Your task to perform on an android device: check out phone information Image 0: 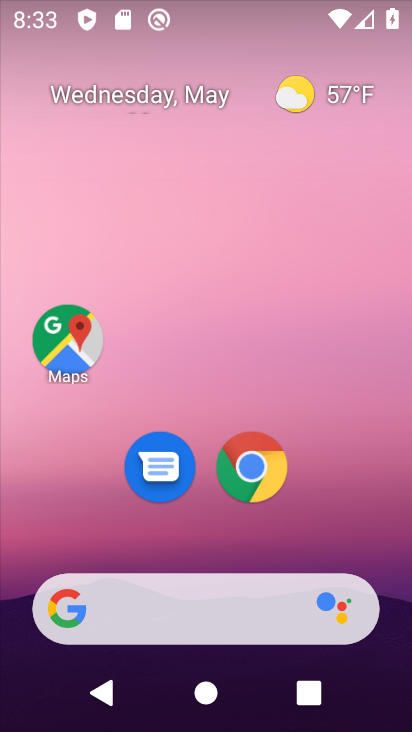
Step 0: click (393, 602)
Your task to perform on an android device: check out phone information Image 1: 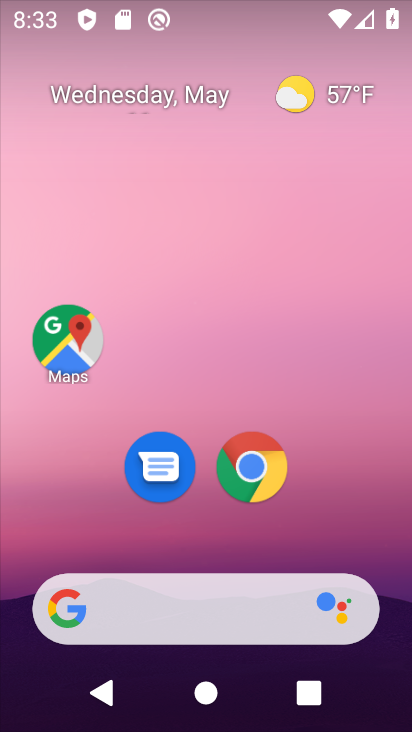
Step 1: click (79, 31)
Your task to perform on an android device: check out phone information Image 2: 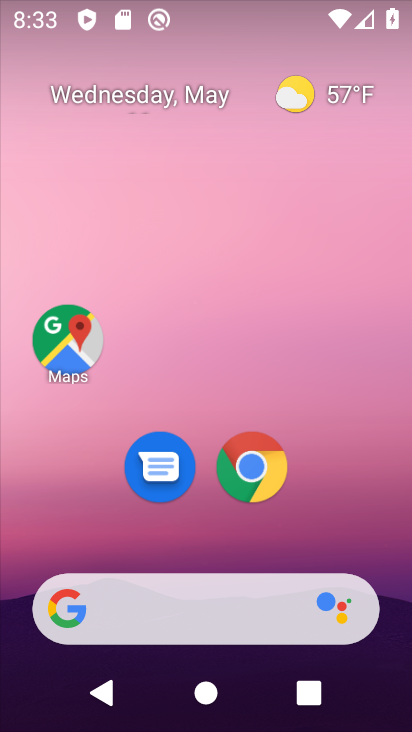
Step 2: drag from (293, 451) to (114, 20)
Your task to perform on an android device: check out phone information Image 3: 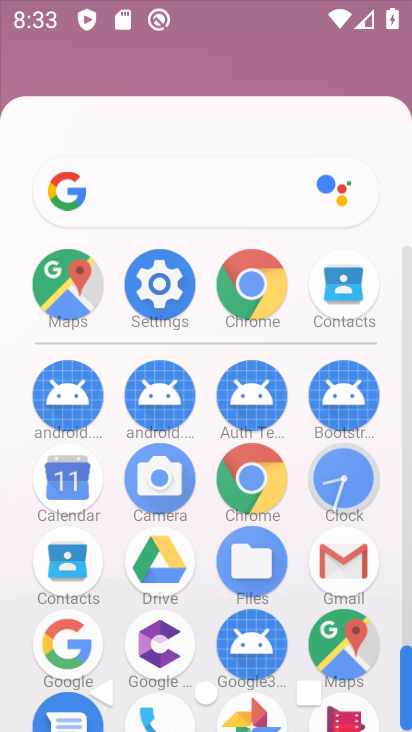
Step 3: drag from (294, 418) to (179, 38)
Your task to perform on an android device: check out phone information Image 4: 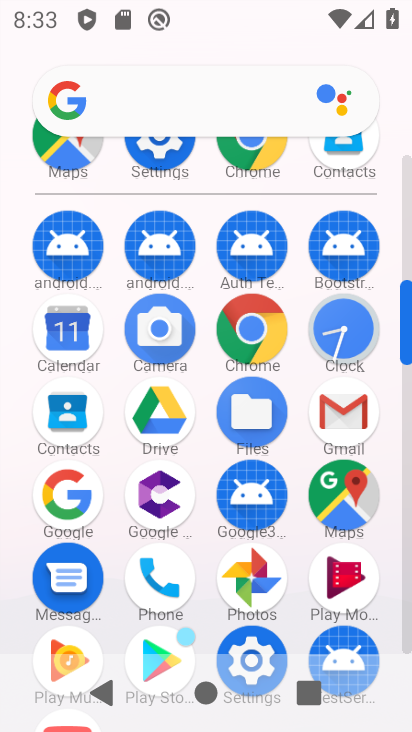
Step 4: drag from (285, 427) to (182, 94)
Your task to perform on an android device: check out phone information Image 5: 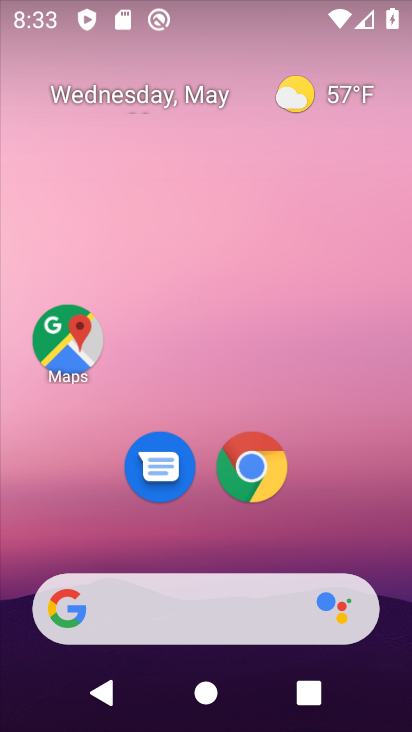
Step 5: press home button
Your task to perform on an android device: check out phone information Image 6: 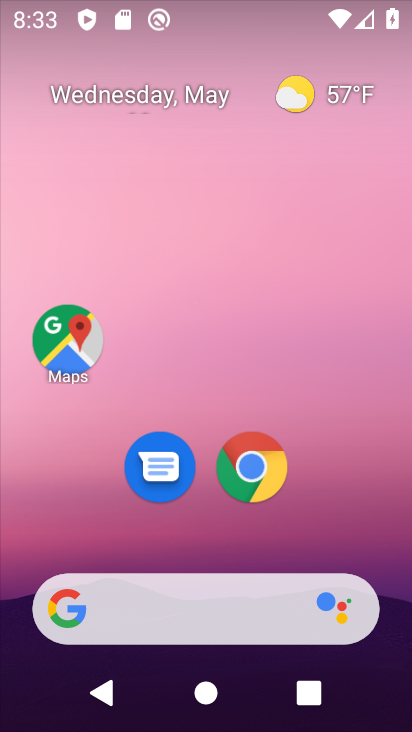
Step 6: press home button
Your task to perform on an android device: check out phone information Image 7: 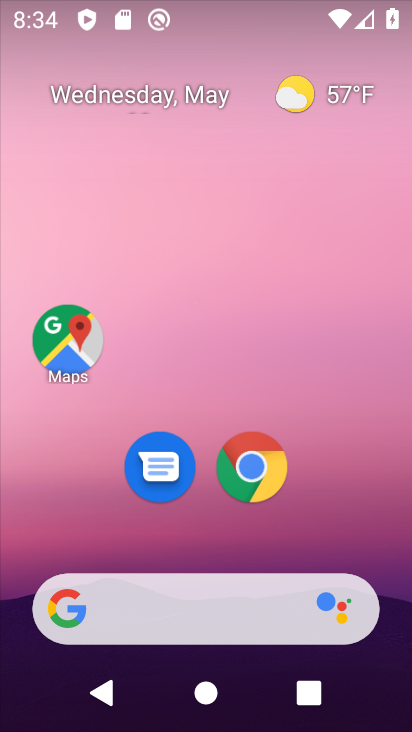
Step 7: click (51, 18)
Your task to perform on an android device: check out phone information Image 8: 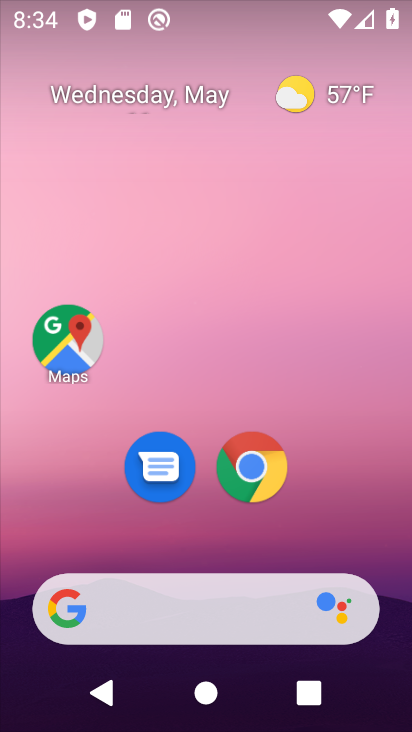
Step 8: click (92, 39)
Your task to perform on an android device: check out phone information Image 9: 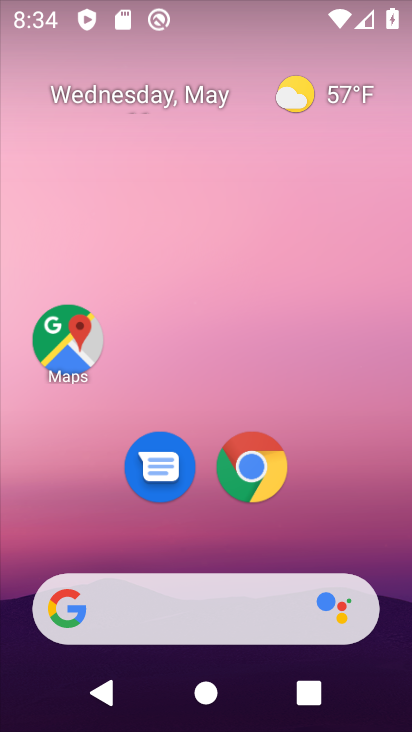
Step 9: drag from (298, 561) to (84, 88)
Your task to perform on an android device: check out phone information Image 10: 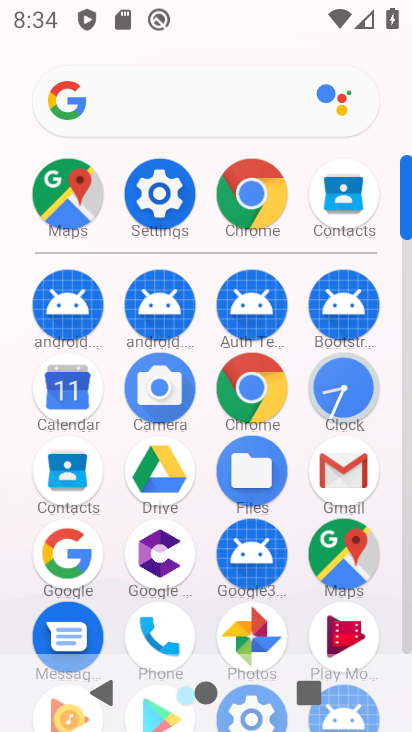
Step 10: drag from (19, 8) to (140, 101)
Your task to perform on an android device: check out phone information Image 11: 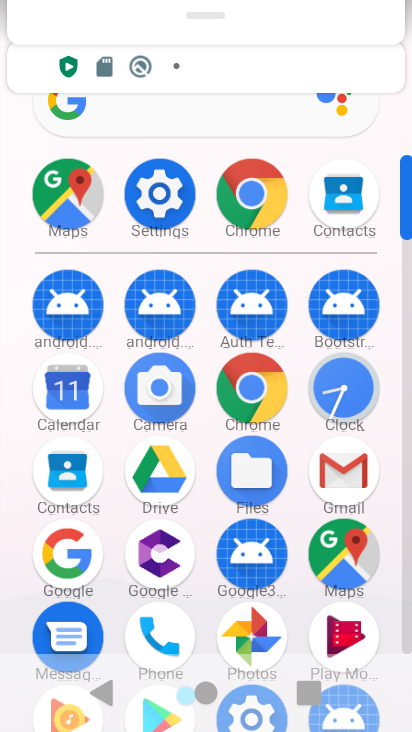
Step 11: drag from (216, 416) to (57, 63)
Your task to perform on an android device: check out phone information Image 12: 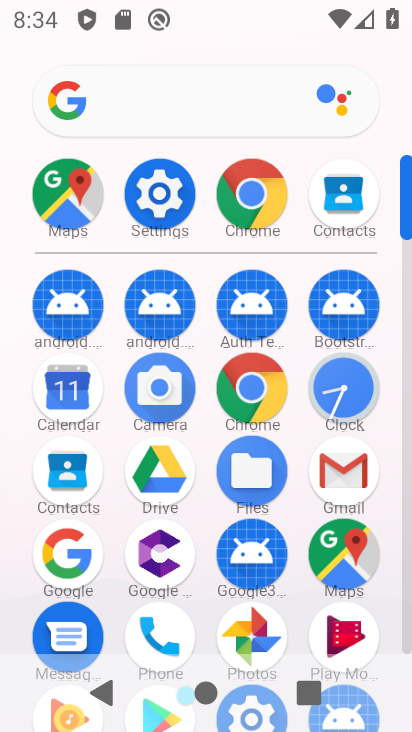
Step 12: drag from (135, 356) to (85, 213)
Your task to perform on an android device: check out phone information Image 13: 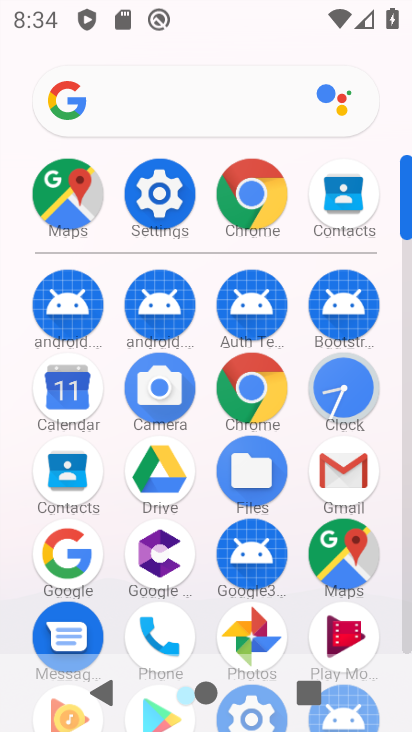
Step 13: drag from (244, 568) to (162, 238)
Your task to perform on an android device: check out phone information Image 14: 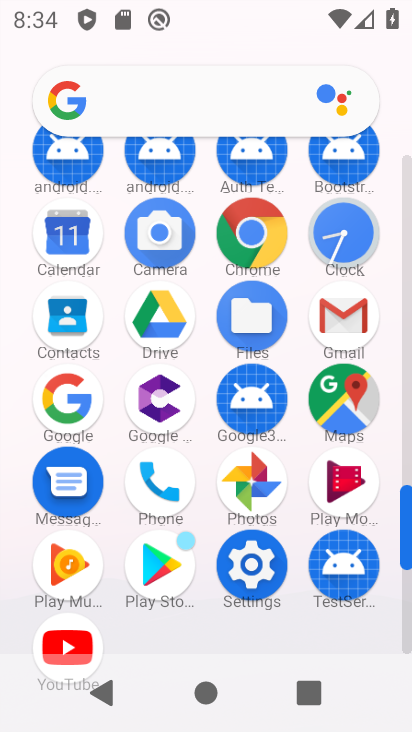
Step 14: click (150, 629)
Your task to perform on an android device: check out phone information Image 15: 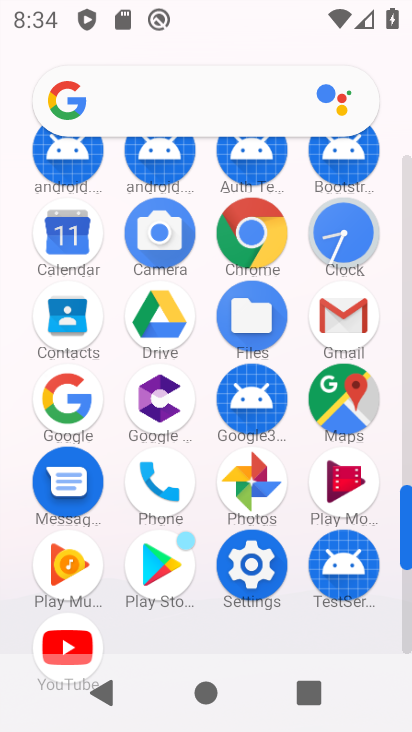
Step 15: click (148, 468)
Your task to perform on an android device: check out phone information Image 16: 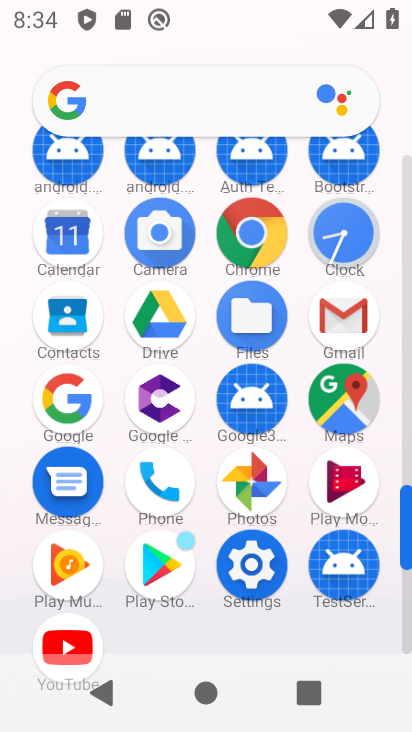
Step 16: click (148, 467)
Your task to perform on an android device: check out phone information Image 17: 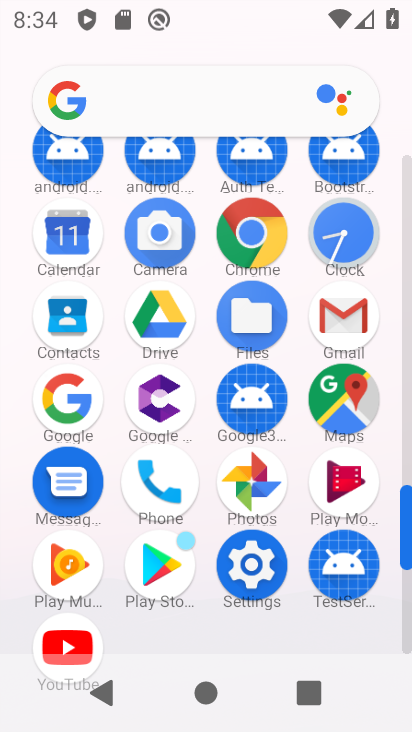
Step 17: drag from (150, 493) to (146, 459)
Your task to perform on an android device: check out phone information Image 18: 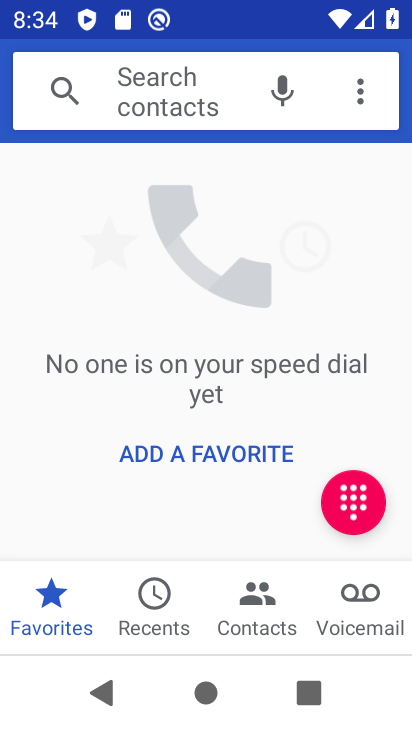
Step 18: press back button
Your task to perform on an android device: check out phone information Image 19: 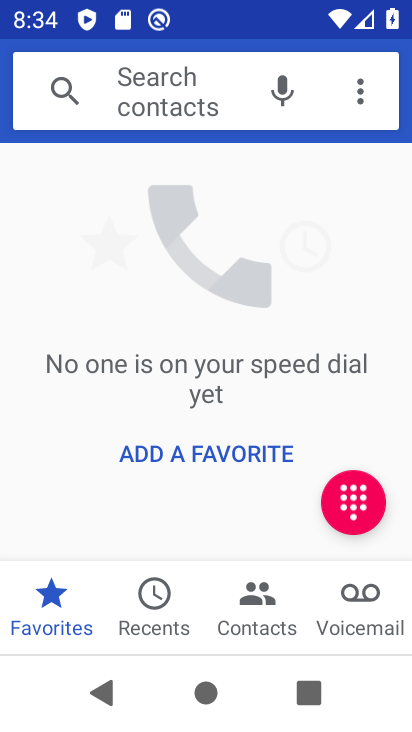
Step 19: press back button
Your task to perform on an android device: check out phone information Image 20: 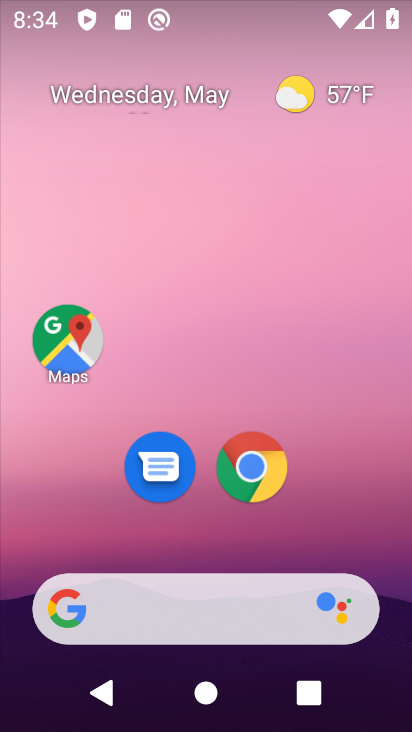
Step 20: drag from (187, 358) to (115, 217)
Your task to perform on an android device: check out phone information Image 21: 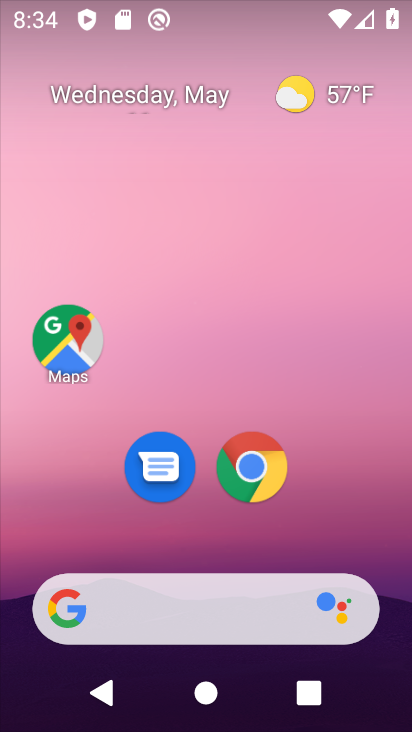
Step 21: drag from (243, 489) to (0, 13)
Your task to perform on an android device: check out phone information Image 22: 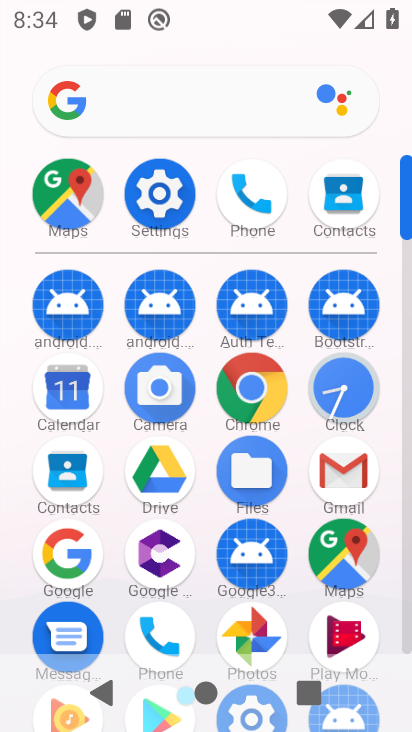
Step 22: click (160, 194)
Your task to perform on an android device: check out phone information Image 23: 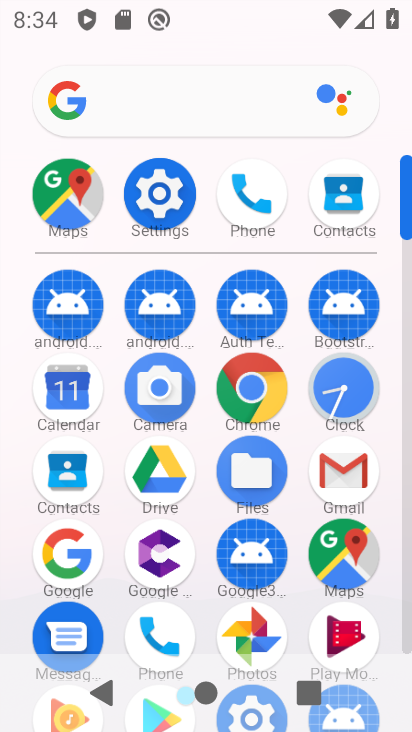
Step 23: click (160, 194)
Your task to perform on an android device: check out phone information Image 24: 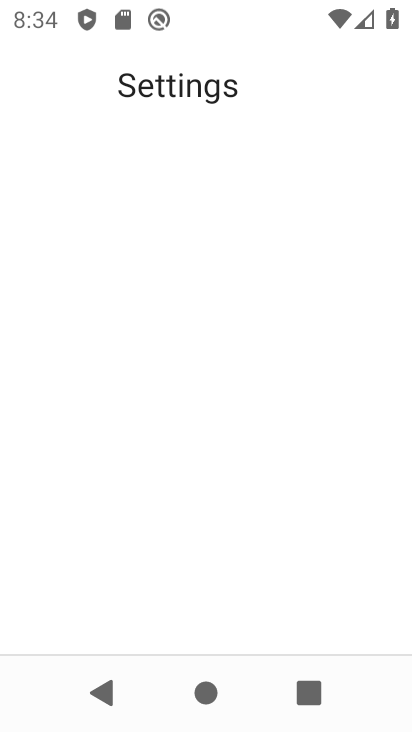
Step 24: click (156, 191)
Your task to perform on an android device: check out phone information Image 25: 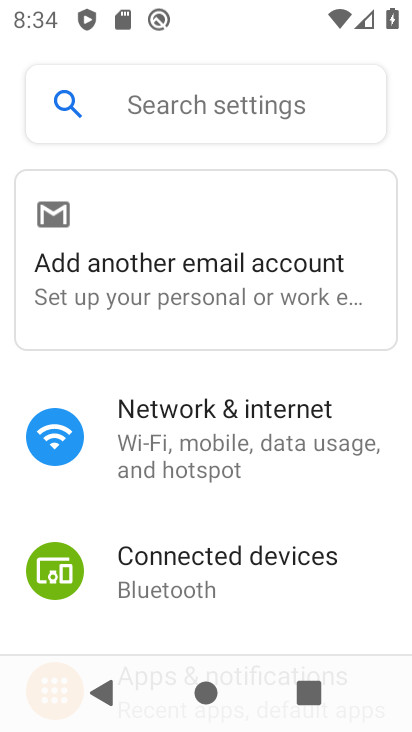
Step 25: drag from (206, 524) to (104, 127)
Your task to perform on an android device: check out phone information Image 26: 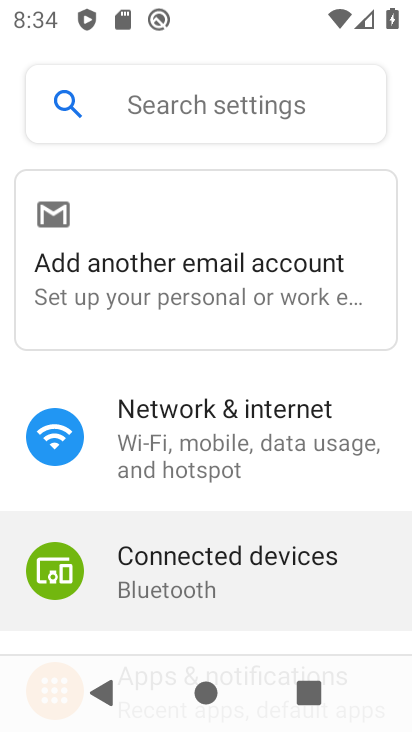
Step 26: drag from (114, 113) to (94, 11)
Your task to perform on an android device: check out phone information Image 27: 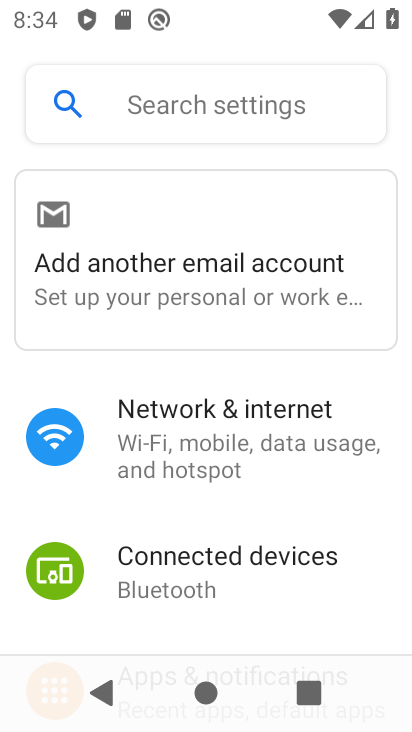
Step 27: drag from (198, 520) to (183, 157)
Your task to perform on an android device: check out phone information Image 28: 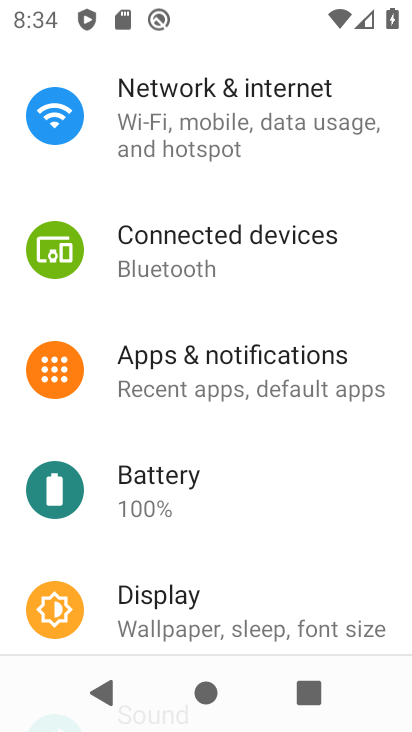
Step 28: drag from (249, 586) to (194, 206)
Your task to perform on an android device: check out phone information Image 29: 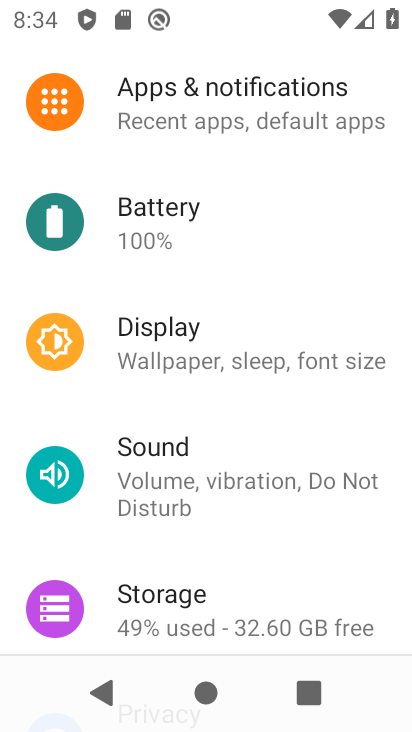
Step 29: drag from (197, 404) to (192, 52)
Your task to perform on an android device: check out phone information Image 30: 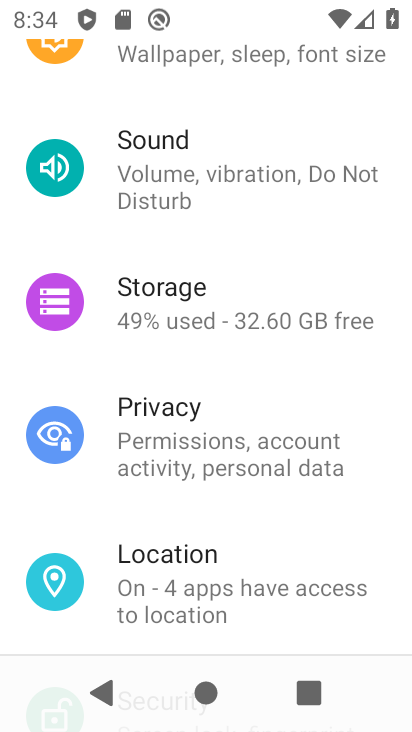
Step 30: drag from (218, 540) to (234, 118)
Your task to perform on an android device: check out phone information Image 31: 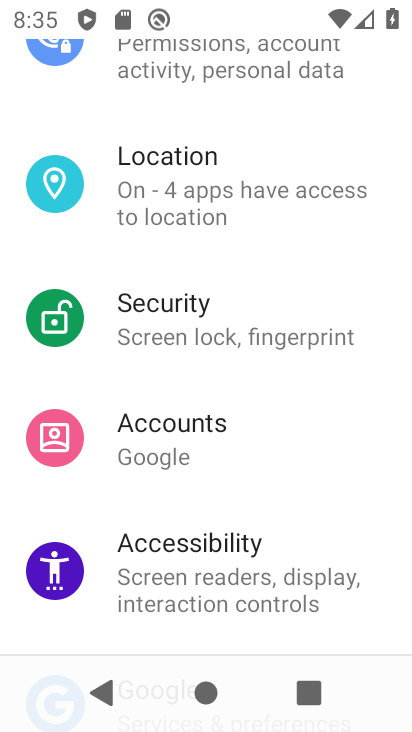
Step 31: drag from (287, 556) to (249, 136)
Your task to perform on an android device: check out phone information Image 32: 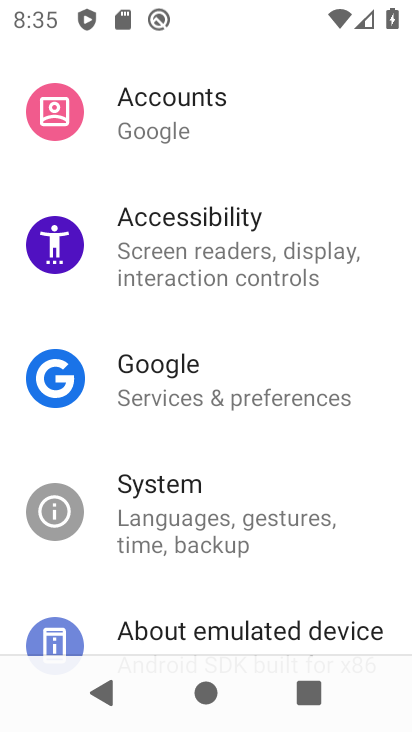
Step 32: drag from (220, 589) to (133, 58)
Your task to perform on an android device: check out phone information Image 33: 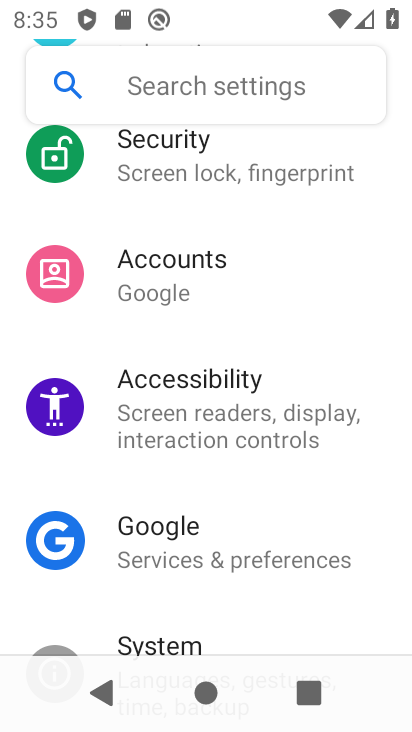
Step 33: drag from (182, 402) to (185, 223)
Your task to perform on an android device: check out phone information Image 34: 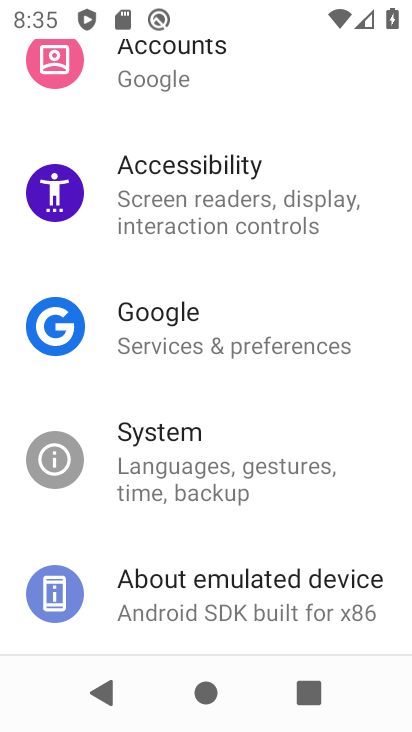
Step 34: click (217, 609)
Your task to perform on an android device: check out phone information Image 35: 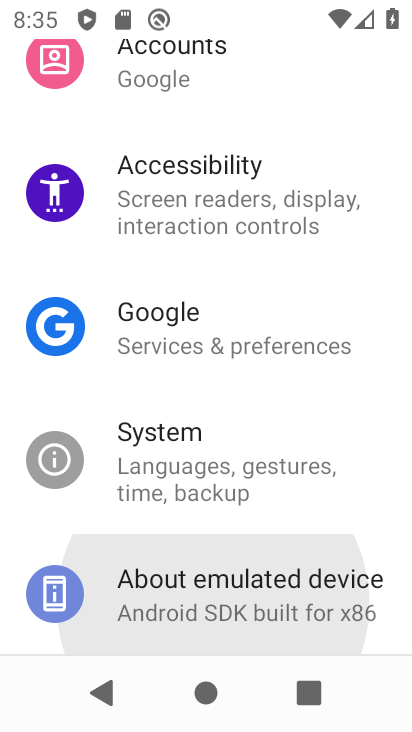
Step 35: click (217, 609)
Your task to perform on an android device: check out phone information Image 36: 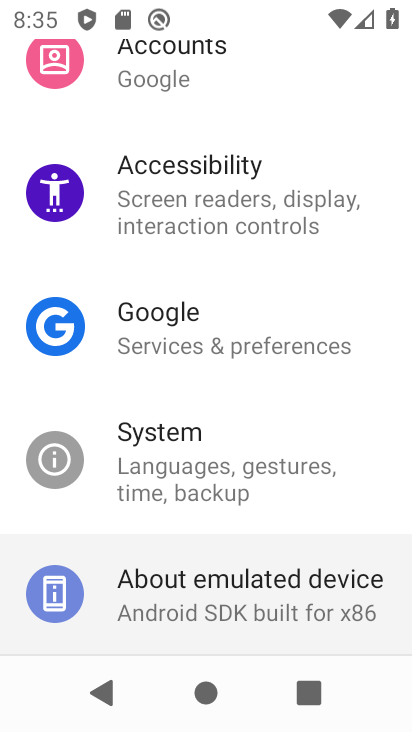
Step 36: click (216, 608)
Your task to perform on an android device: check out phone information Image 37: 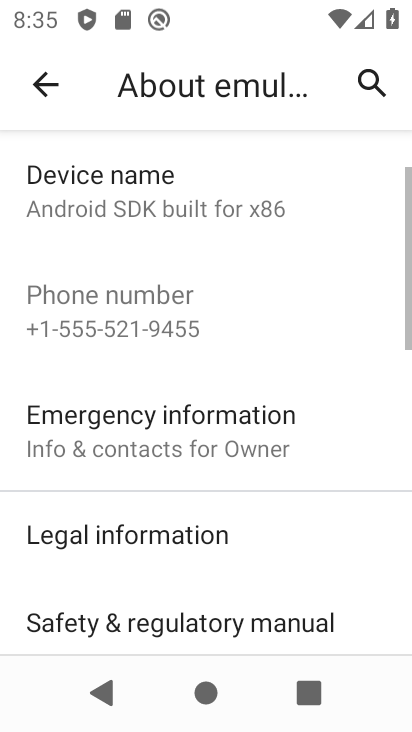
Step 37: task complete